Your task to perform on an android device: add a contact in the contacts app Image 0: 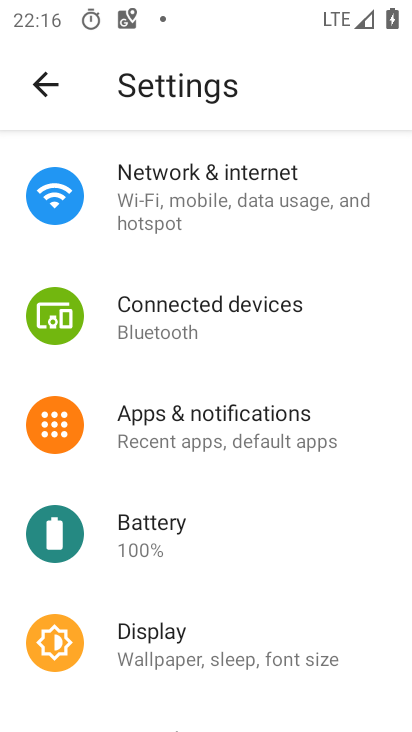
Step 0: press home button
Your task to perform on an android device: add a contact in the contacts app Image 1: 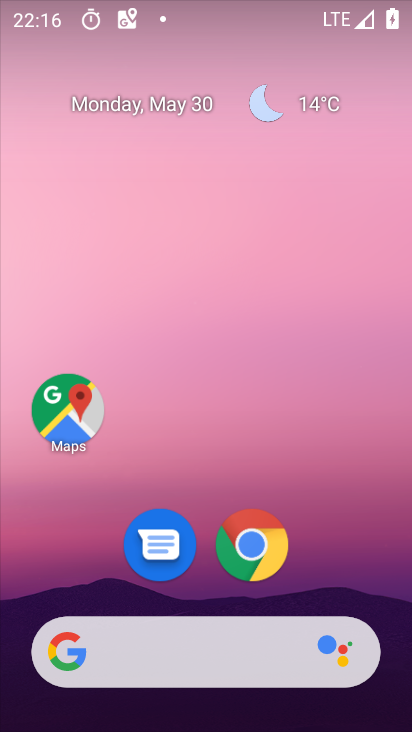
Step 1: drag from (375, 535) to (336, 41)
Your task to perform on an android device: add a contact in the contacts app Image 2: 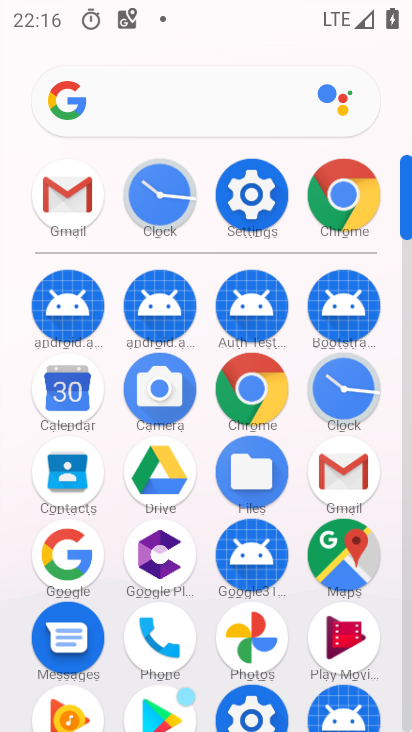
Step 2: click (58, 459)
Your task to perform on an android device: add a contact in the contacts app Image 3: 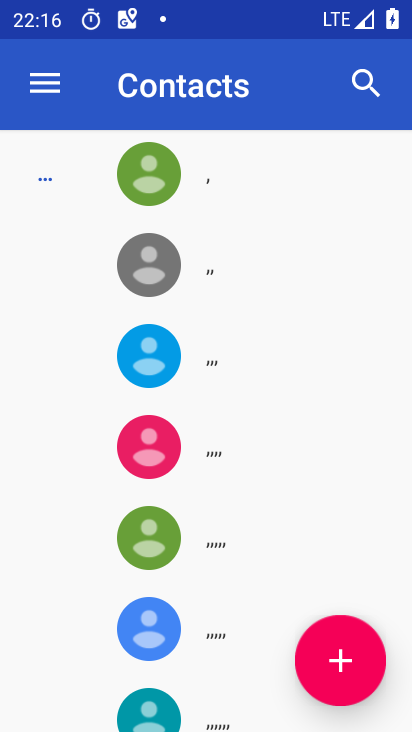
Step 3: click (339, 679)
Your task to perform on an android device: add a contact in the contacts app Image 4: 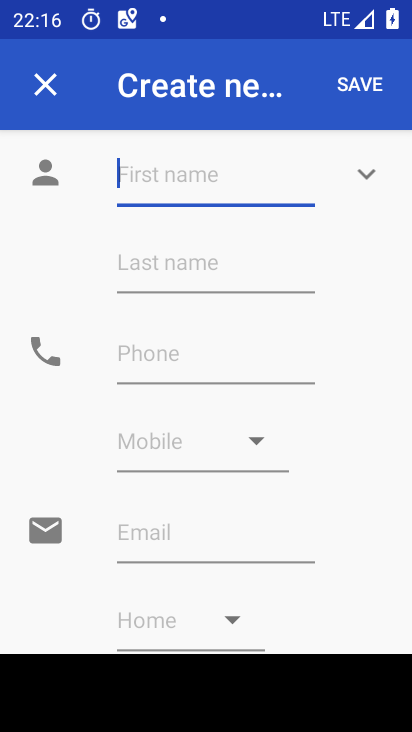
Step 4: type "fbdfb"
Your task to perform on an android device: add a contact in the contacts app Image 5: 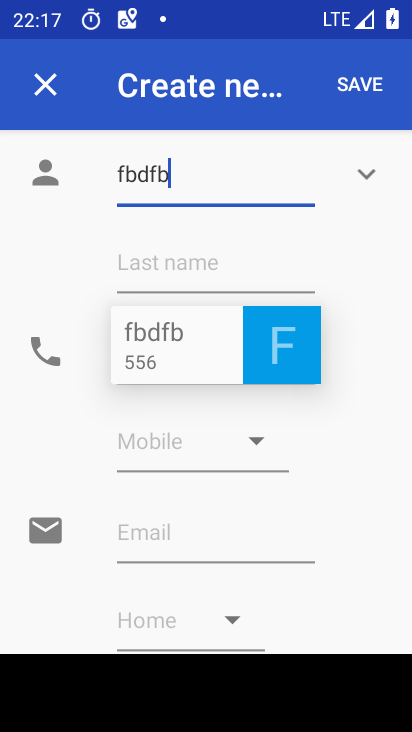
Step 5: click (182, 368)
Your task to perform on an android device: add a contact in the contacts app Image 6: 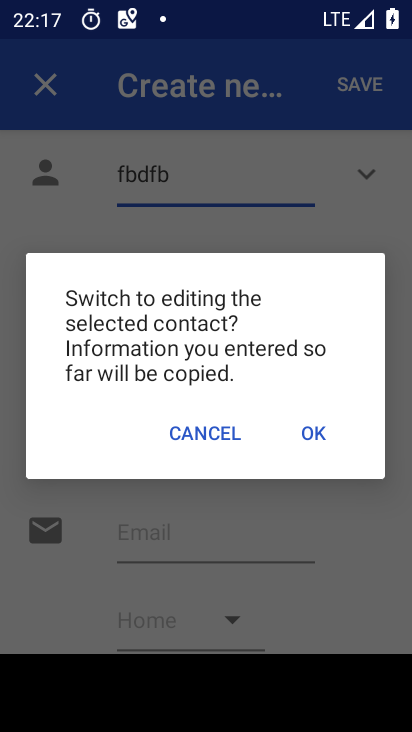
Step 6: click (323, 431)
Your task to perform on an android device: add a contact in the contacts app Image 7: 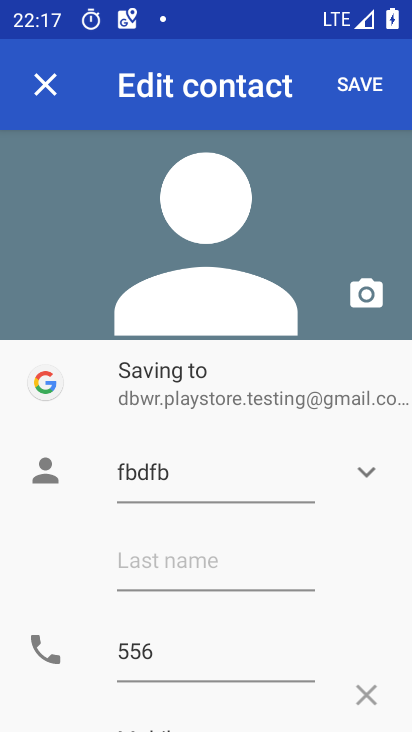
Step 7: click (211, 660)
Your task to perform on an android device: add a contact in the contacts app Image 8: 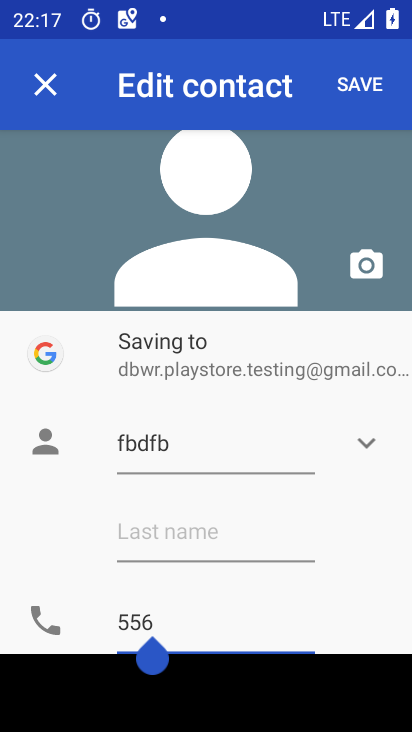
Step 8: type "453466"
Your task to perform on an android device: add a contact in the contacts app Image 9: 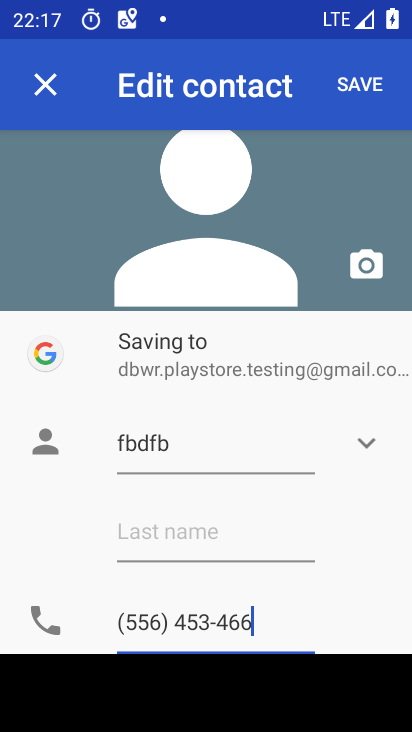
Step 9: click (382, 85)
Your task to perform on an android device: add a contact in the contacts app Image 10: 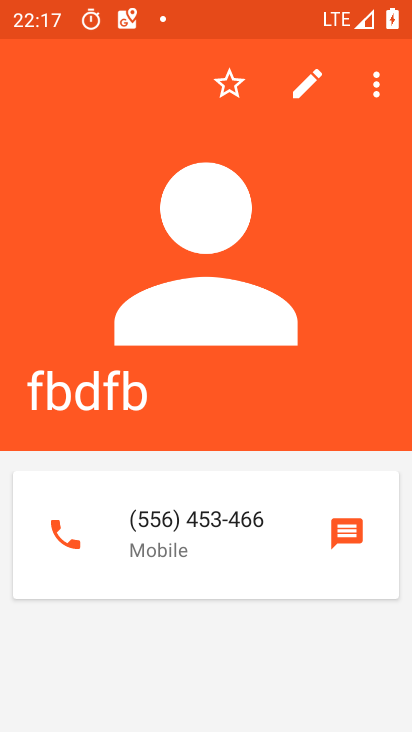
Step 10: task complete